Your task to perform on an android device: turn off airplane mode Image 0: 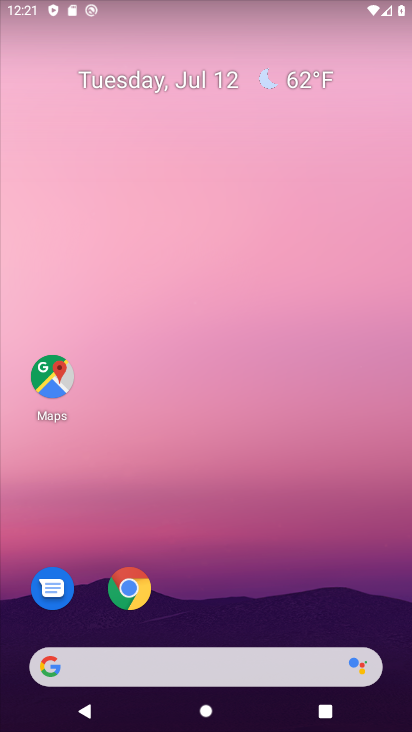
Step 0: drag from (142, 720) to (163, 111)
Your task to perform on an android device: turn off airplane mode Image 1: 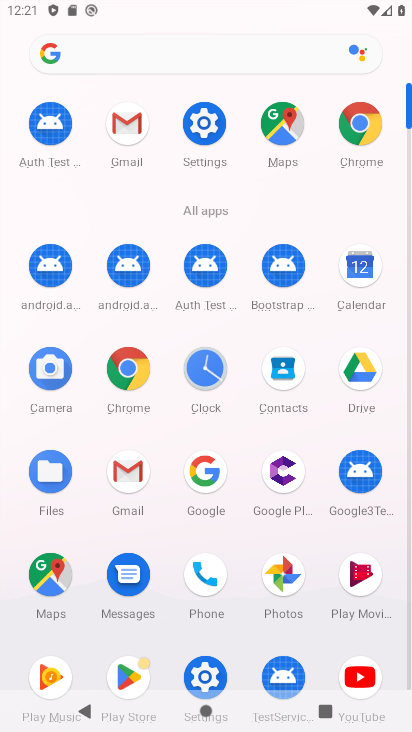
Step 1: click (215, 130)
Your task to perform on an android device: turn off airplane mode Image 2: 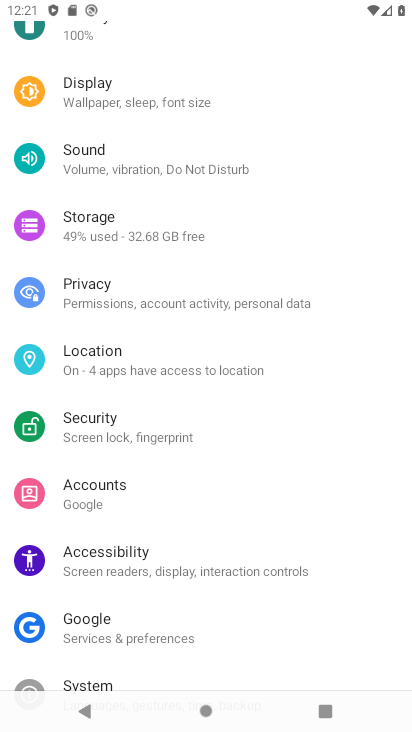
Step 2: drag from (278, 176) to (347, 637)
Your task to perform on an android device: turn off airplane mode Image 3: 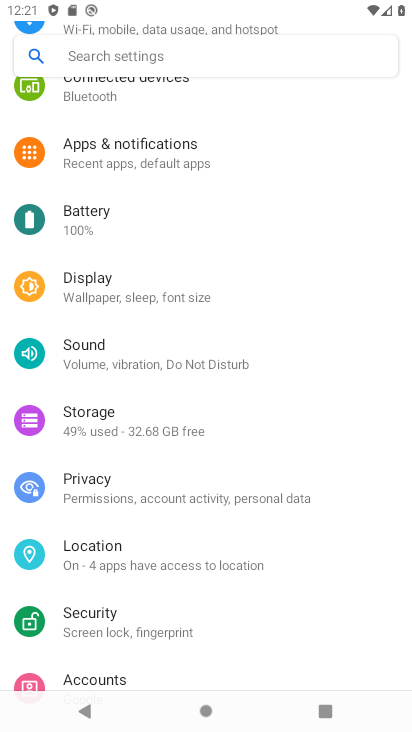
Step 3: drag from (294, 153) to (394, 702)
Your task to perform on an android device: turn off airplane mode Image 4: 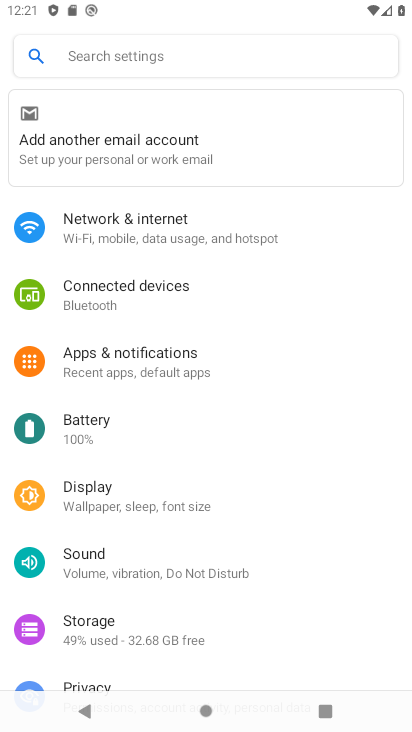
Step 4: click (286, 235)
Your task to perform on an android device: turn off airplane mode Image 5: 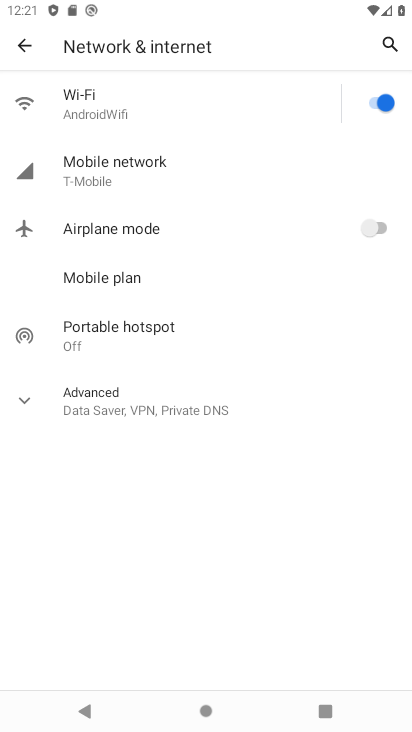
Step 5: task complete